Your task to perform on an android device: Open Google Maps and go to "Timeline" Image 0: 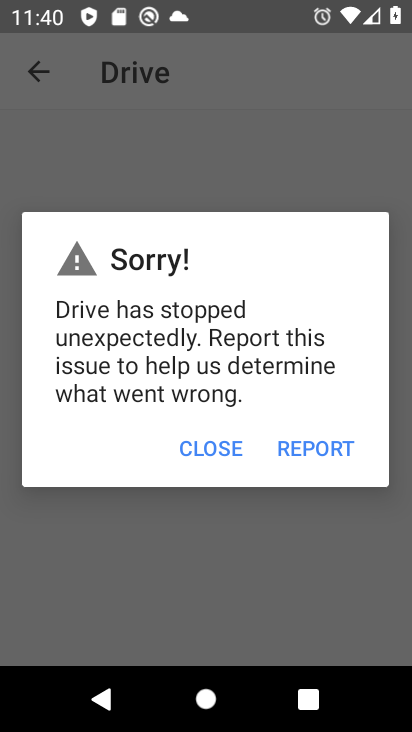
Step 0: press home button
Your task to perform on an android device: Open Google Maps and go to "Timeline" Image 1: 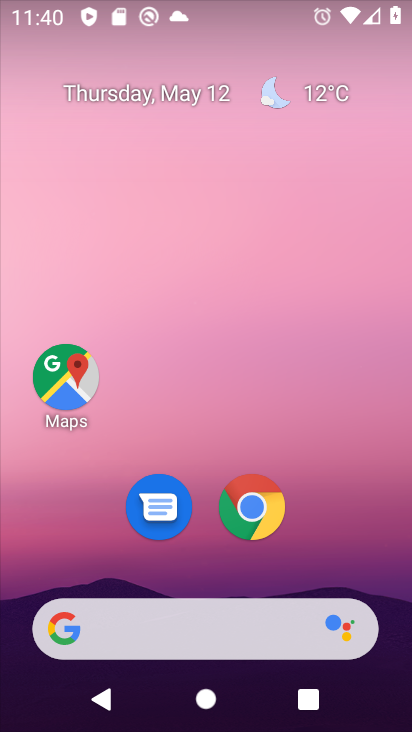
Step 1: click (60, 382)
Your task to perform on an android device: Open Google Maps and go to "Timeline" Image 2: 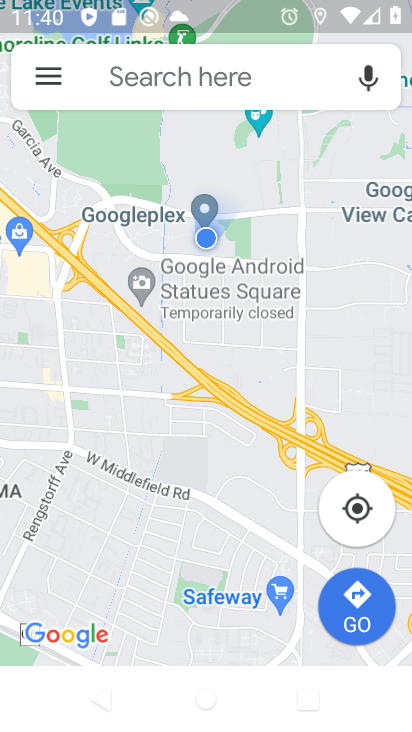
Step 2: click (48, 89)
Your task to perform on an android device: Open Google Maps and go to "Timeline" Image 3: 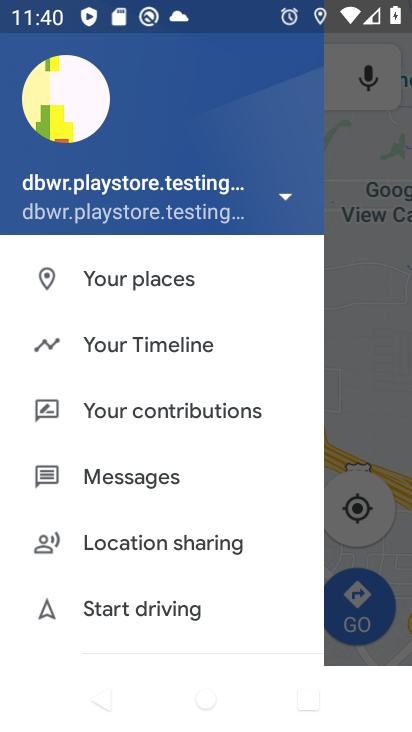
Step 3: click (226, 357)
Your task to perform on an android device: Open Google Maps and go to "Timeline" Image 4: 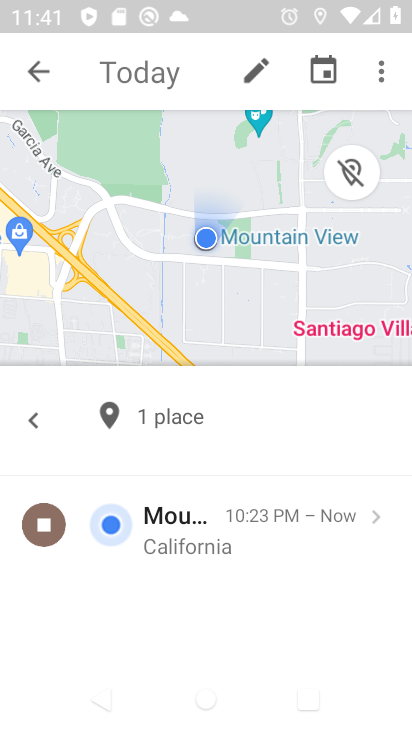
Step 4: task complete